Your task to perform on an android device: Open Google Maps Image 0: 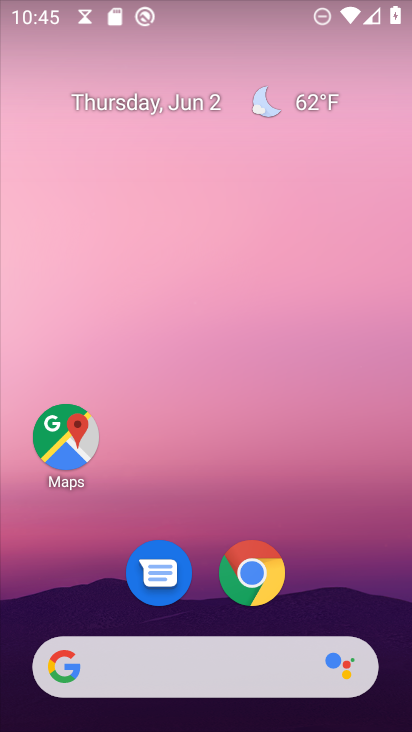
Step 0: click (64, 439)
Your task to perform on an android device: Open Google Maps Image 1: 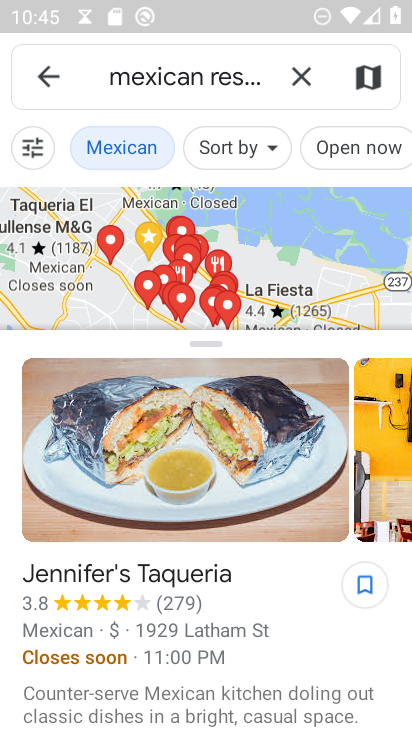
Step 1: click (306, 79)
Your task to perform on an android device: Open Google Maps Image 2: 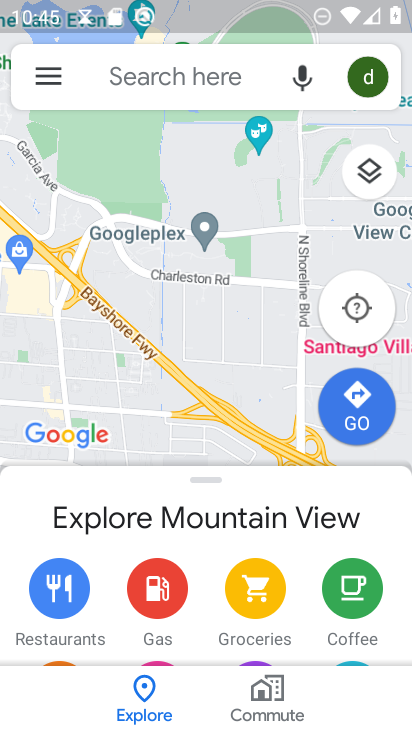
Step 2: task complete